Your task to perform on an android device: find snoozed emails in the gmail app Image 0: 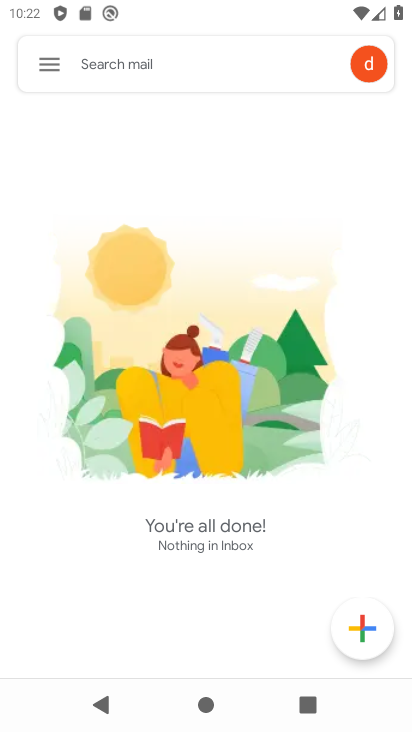
Step 0: press back button
Your task to perform on an android device: find snoozed emails in the gmail app Image 1: 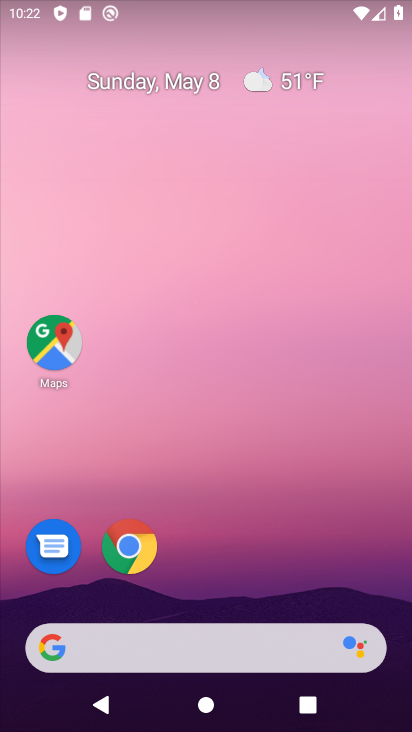
Step 1: drag from (259, 552) to (239, 132)
Your task to perform on an android device: find snoozed emails in the gmail app Image 2: 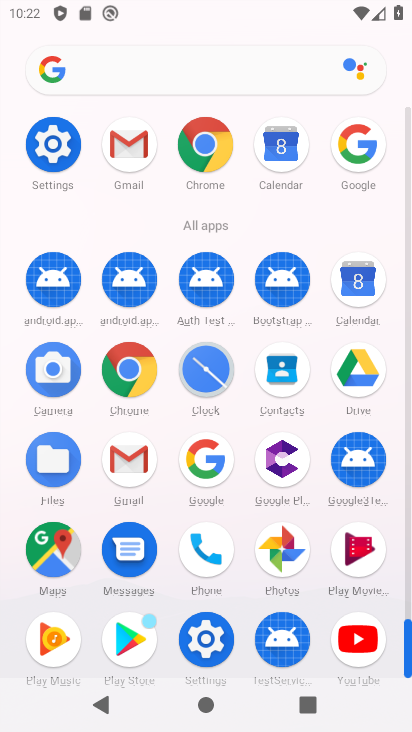
Step 2: click (133, 144)
Your task to perform on an android device: find snoozed emails in the gmail app Image 3: 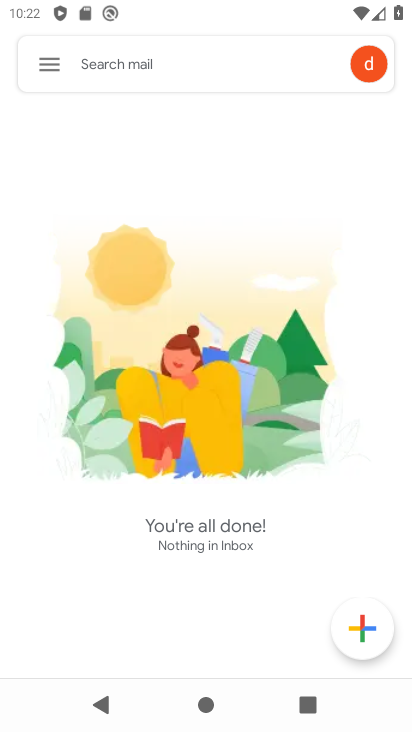
Step 3: click (115, 70)
Your task to perform on an android device: find snoozed emails in the gmail app Image 4: 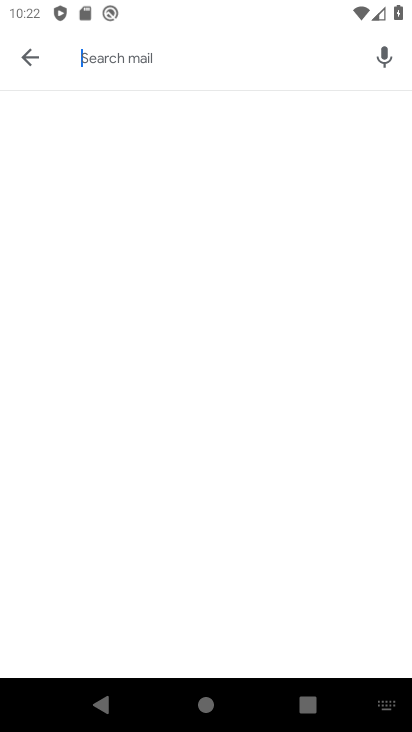
Step 4: type "snoozed"
Your task to perform on an android device: find snoozed emails in the gmail app Image 5: 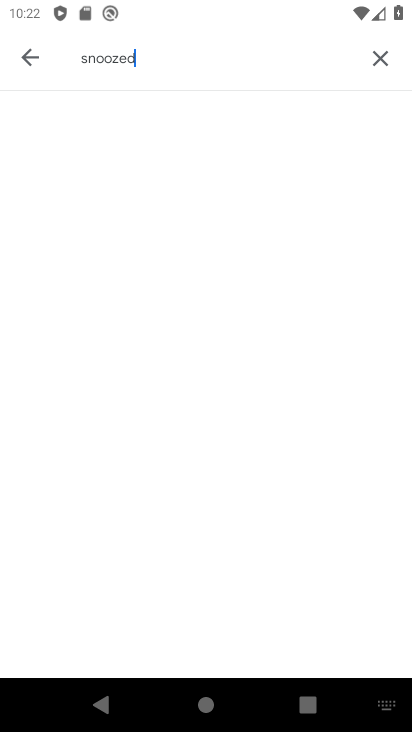
Step 5: task complete